Your task to perform on an android device: see tabs open on other devices in the chrome app Image 0: 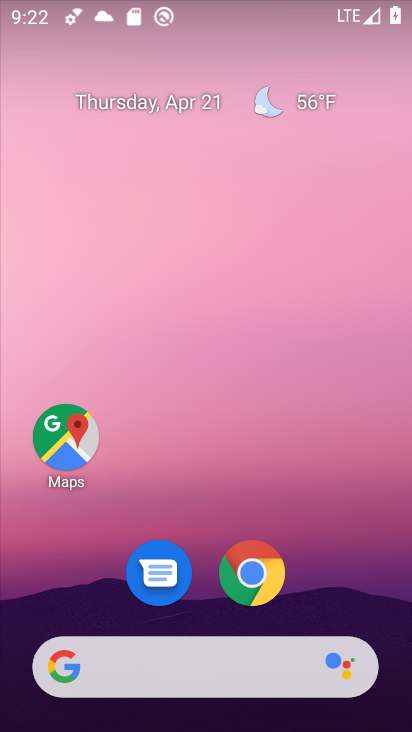
Step 0: click (239, 570)
Your task to perform on an android device: see tabs open on other devices in the chrome app Image 1: 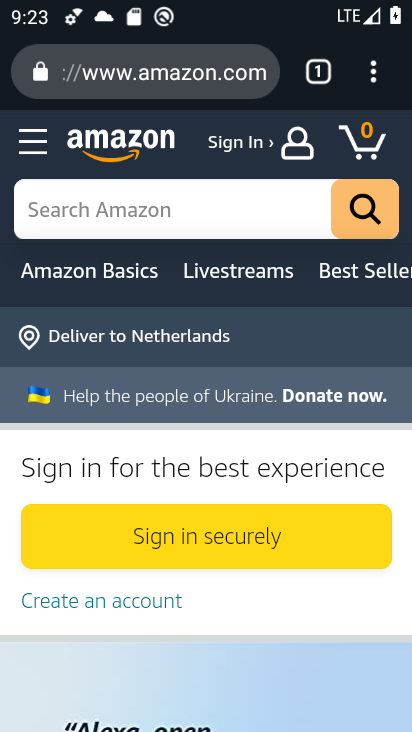
Step 1: click (373, 80)
Your task to perform on an android device: see tabs open on other devices in the chrome app Image 2: 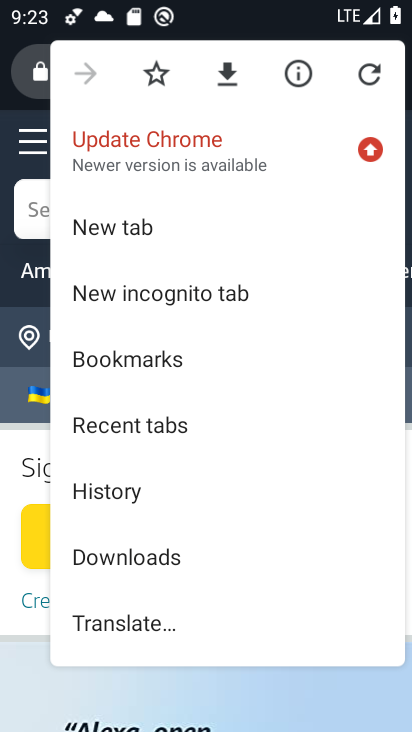
Step 2: click (173, 429)
Your task to perform on an android device: see tabs open on other devices in the chrome app Image 3: 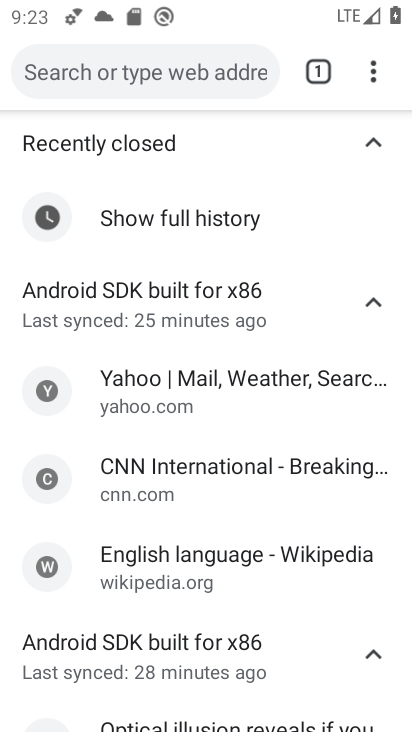
Step 3: task complete